Your task to perform on an android device: find photos in the google photos app Image 0: 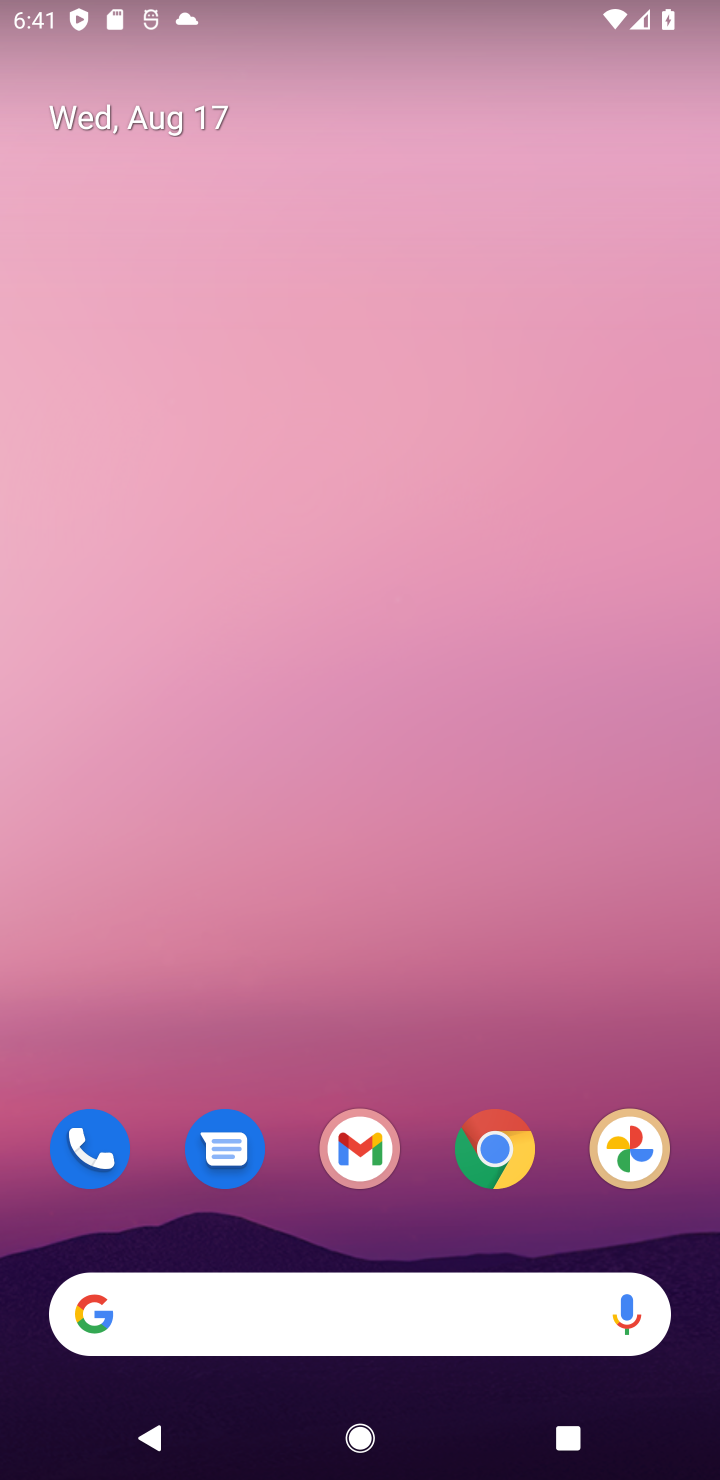
Step 0: click (634, 1155)
Your task to perform on an android device: find photos in the google photos app Image 1: 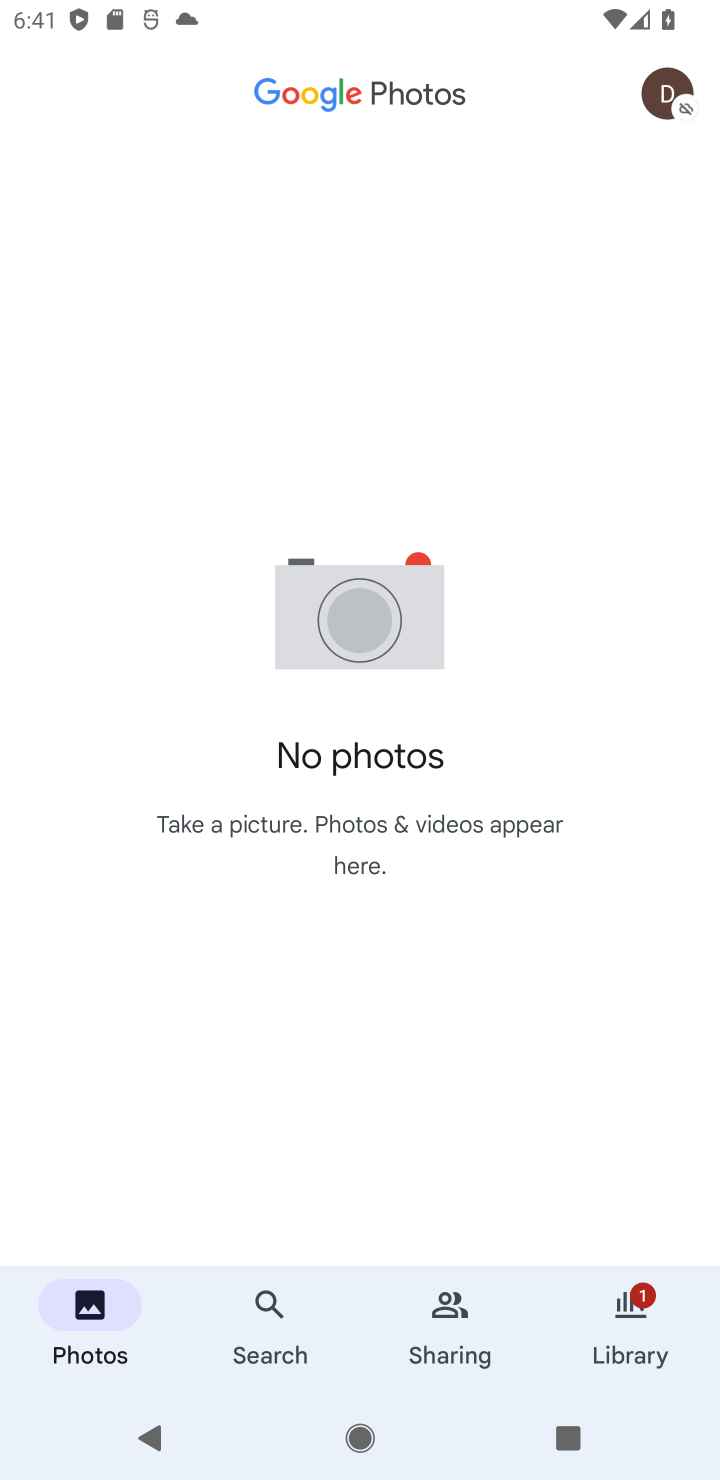
Step 1: click (264, 1302)
Your task to perform on an android device: find photos in the google photos app Image 2: 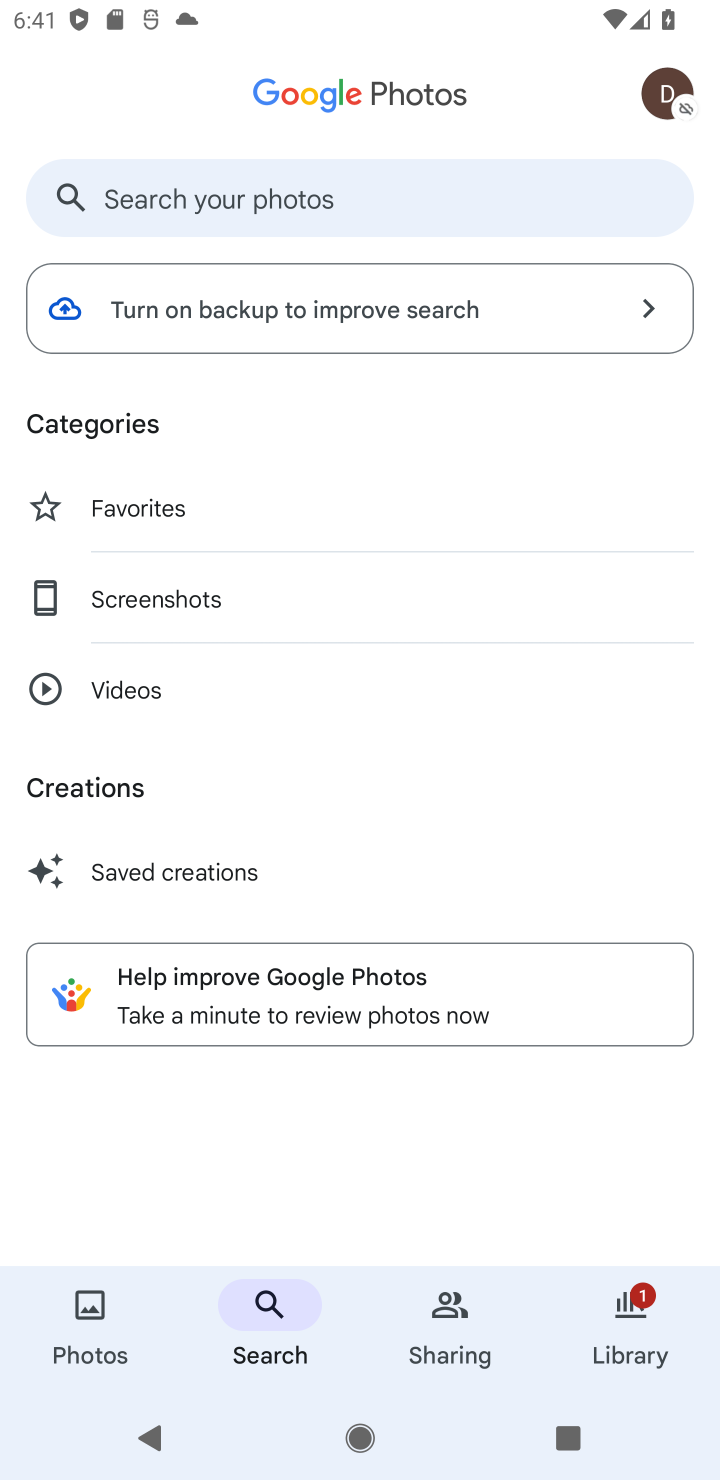
Step 2: task complete